Your task to perform on an android device: see tabs open on other devices in the chrome app Image 0: 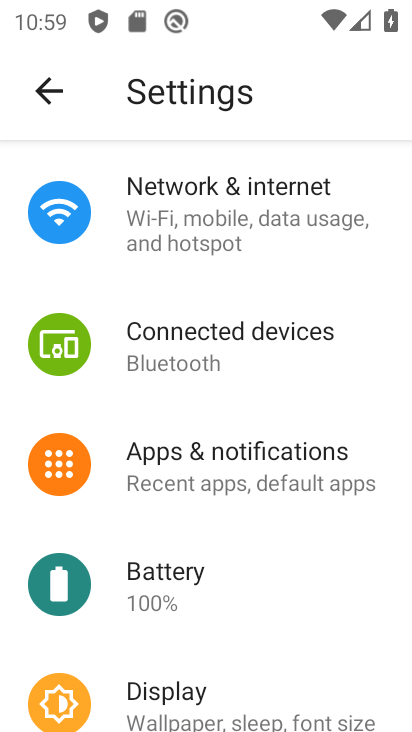
Step 0: press back button
Your task to perform on an android device: see tabs open on other devices in the chrome app Image 1: 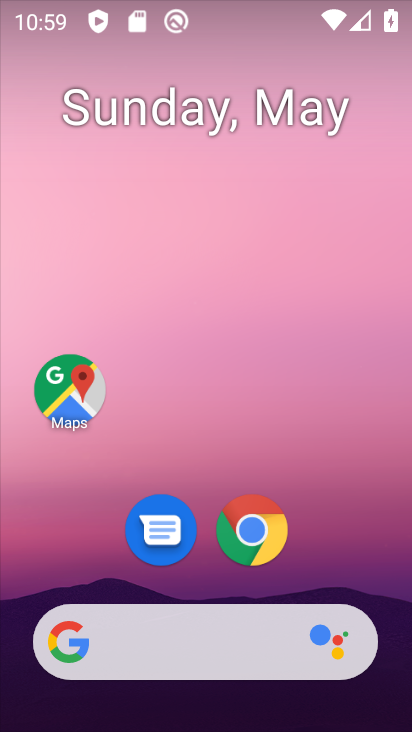
Step 1: click (241, 533)
Your task to perform on an android device: see tabs open on other devices in the chrome app Image 2: 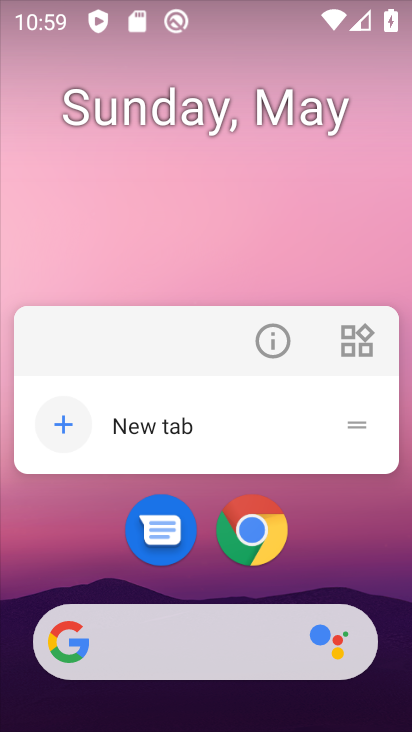
Step 2: click (249, 527)
Your task to perform on an android device: see tabs open on other devices in the chrome app Image 3: 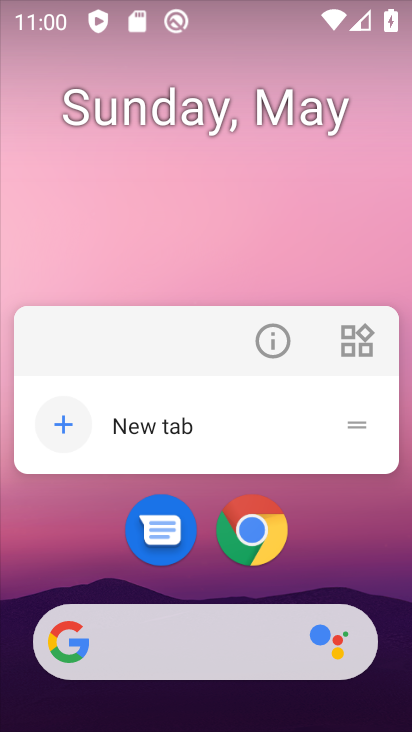
Step 3: click (249, 540)
Your task to perform on an android device: see tabs open on other devices in the chrome app Image 4: 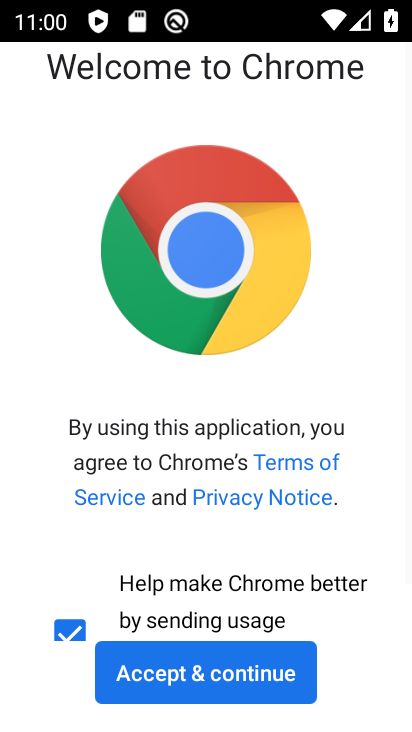
Step 4: click (155, 693)
Your task to perform on an android device: see tabs open on other devices in the chrome app Image 5: 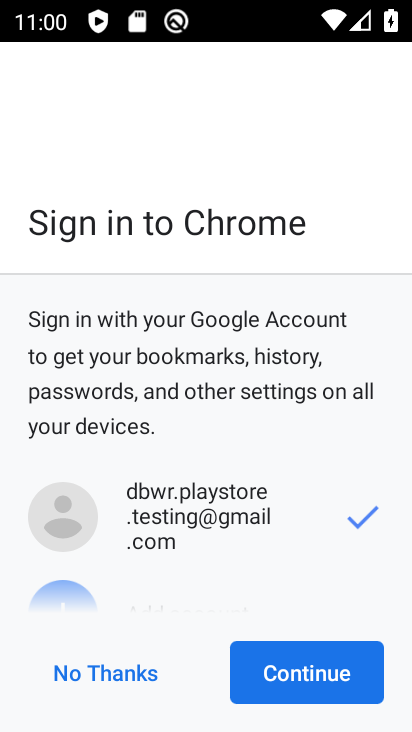
Step 5: click (315, 669)
Your task to perform on an android device: see tabs open on other devices in the chrome app Image 6: 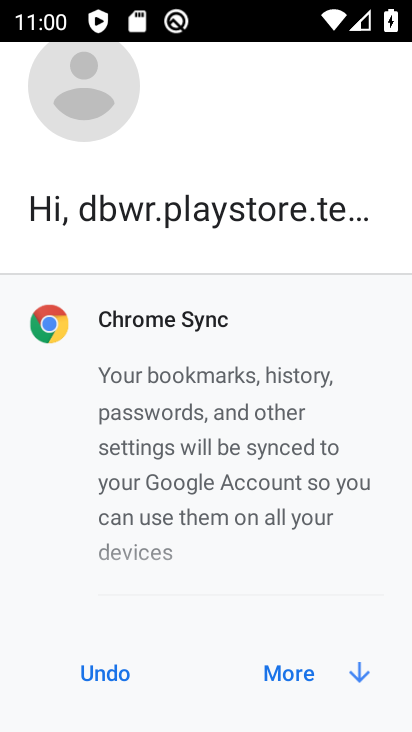
Step 6: click (308, 673)
Your task to perform on an android device: see tabs open on other devices in the chrome app Image 7: 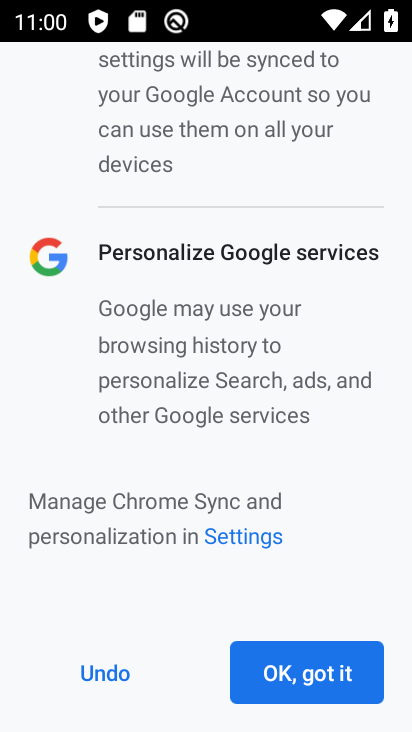
Step 7: click (308, 673)
Your task to perform on an android device: see tabs open on other devices in the chrome app Image 8: 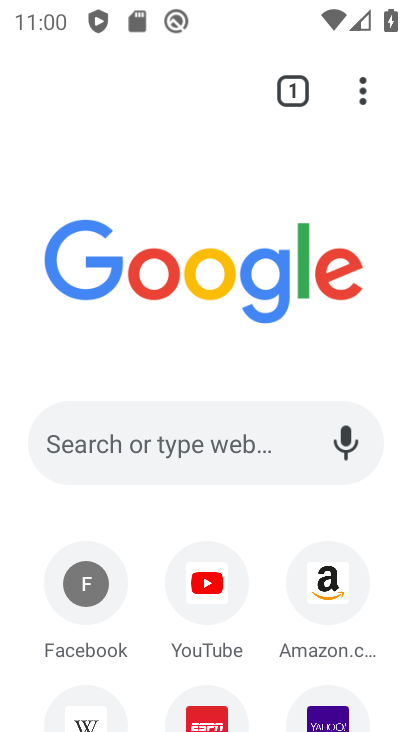
Step 8: task complete